Your task to perform on an android device: check storage Image 0: 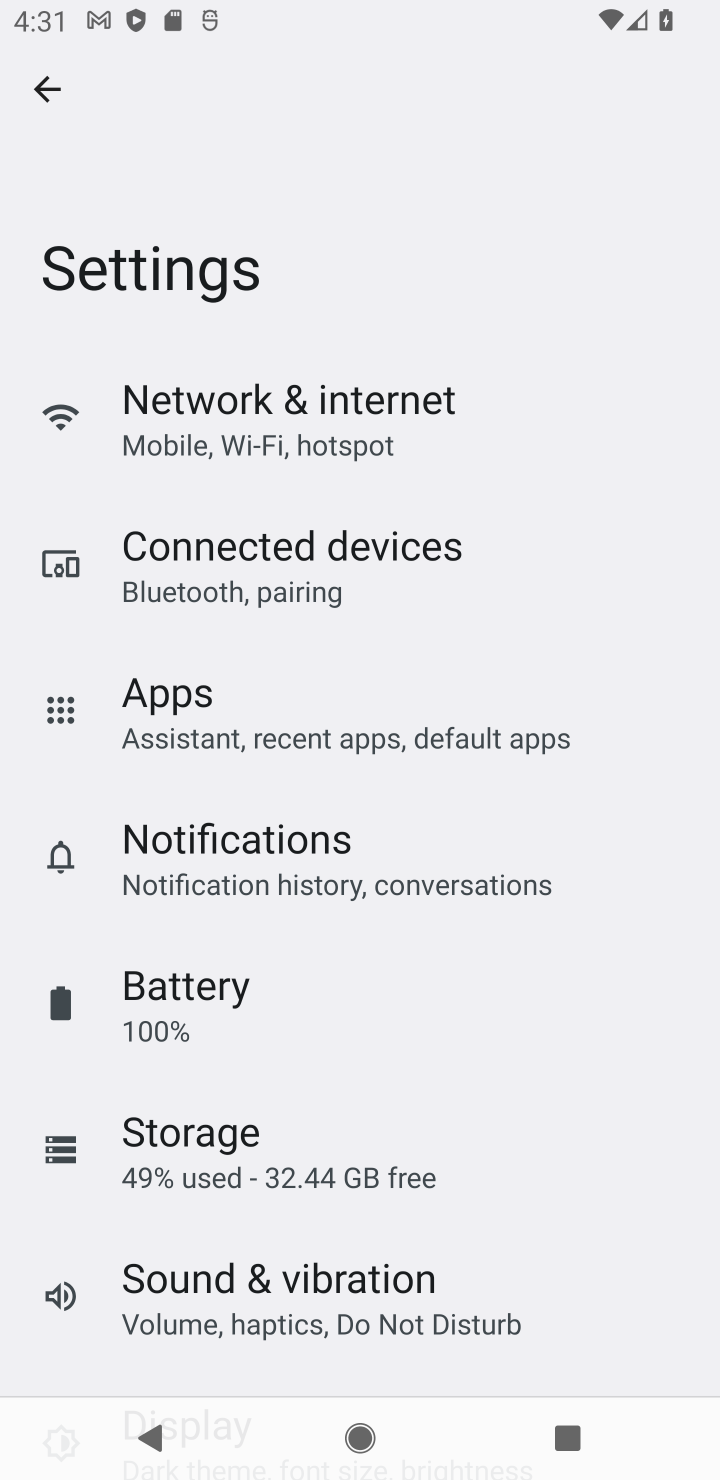
Step 0: click (354, 1149)
Your task to perform on an android device: check storage Image 1: 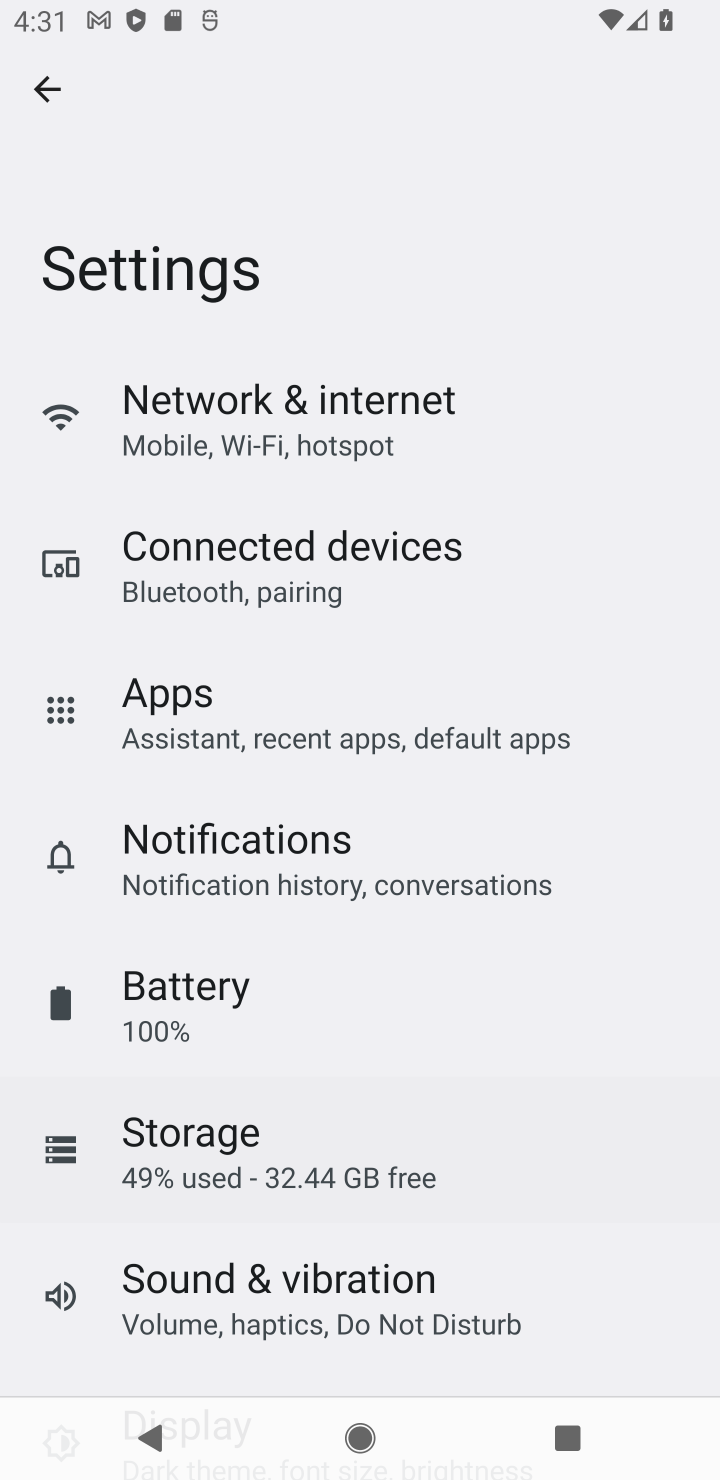
Step 1: task complete